Your task to perform on an android device: Go to accessibility settings Image 0: 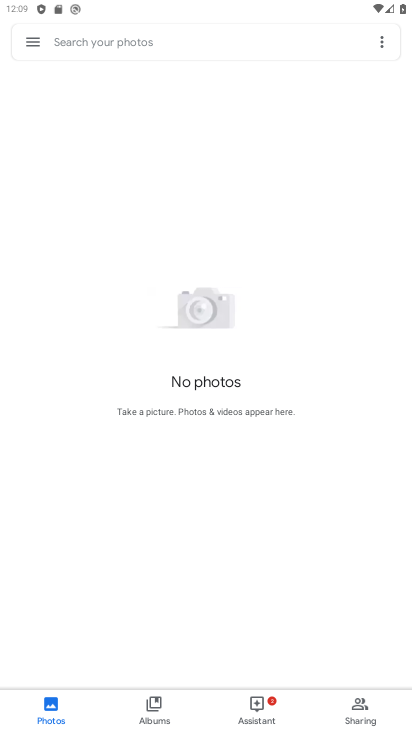
Step 0: press home button
Your task to perform on an android device: Go to accessibility settings Image 1: 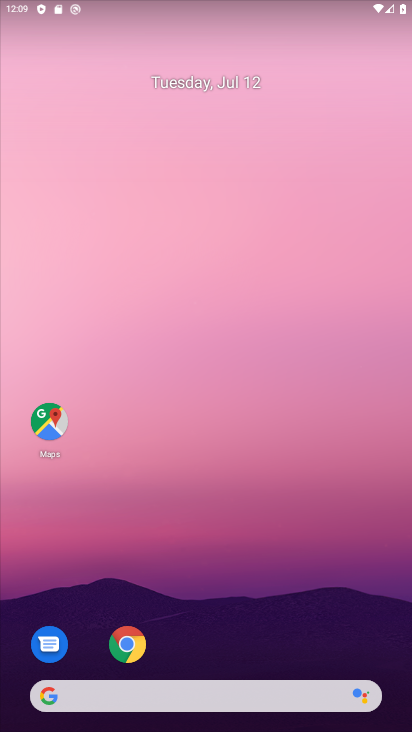
Step 1: drag from (99, 448) to (291, 28)
Your task to perform on an android device: Go to accessibility settings Image 2: 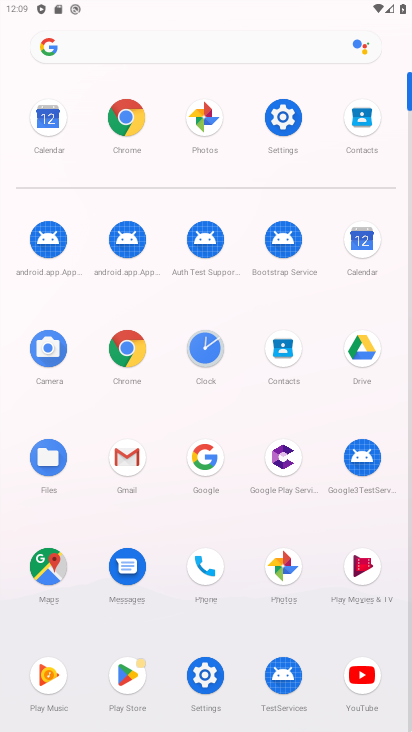
Step 2: click (190, 677)
Your task to perform on an android device: Go to accessibility settings Image 3: 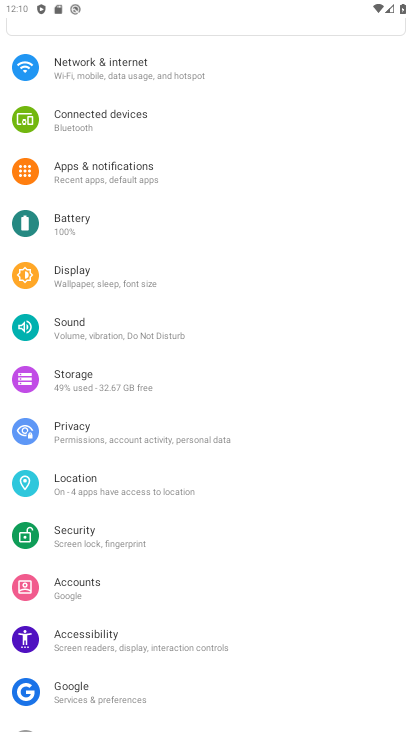
Step 3: click (151, 640)
Your task to perform on an android device: Go to accessibility settings Image 4: 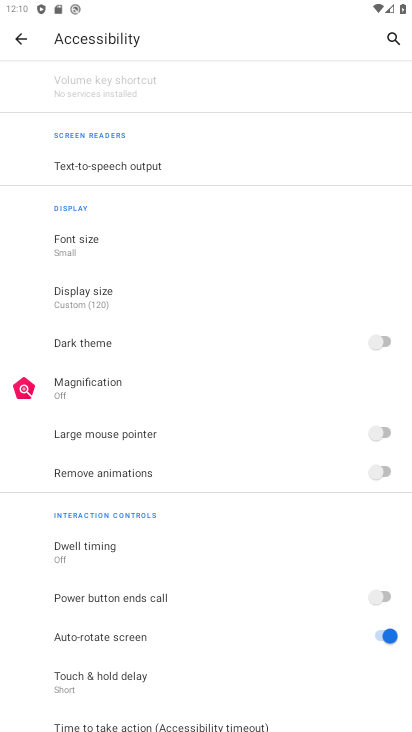
Step 4: task complete